Your task to perform on an android device: check google app version Image 0: 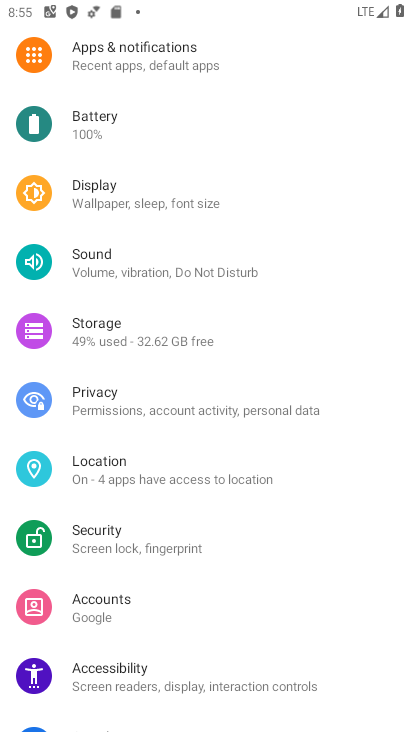
Step 0: press home button
Your task to perform on an android device: check google app version Image 1: 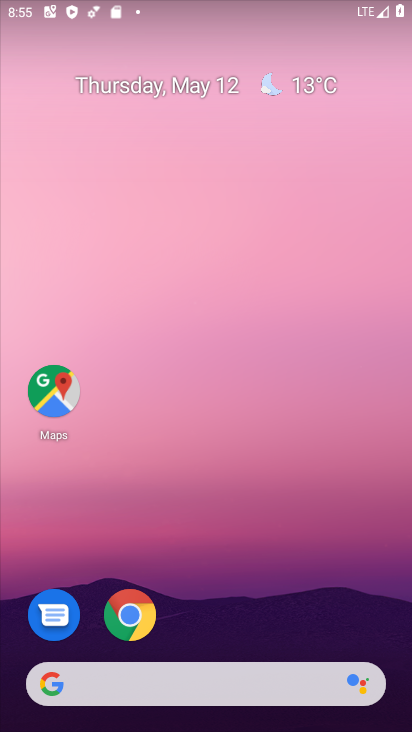
Step 1: drag from (212, 638) to (167, 95)
Your task to perform on an android device: check google app version Image 2: 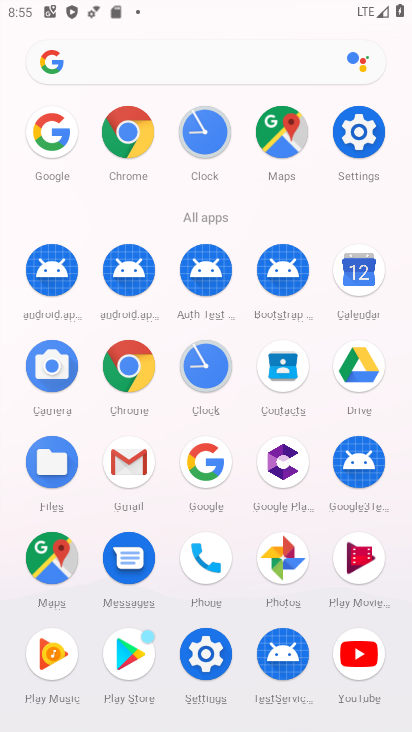
Step 2: click (203, 460)
Your task to perform on an android device: check google app version Image 3: 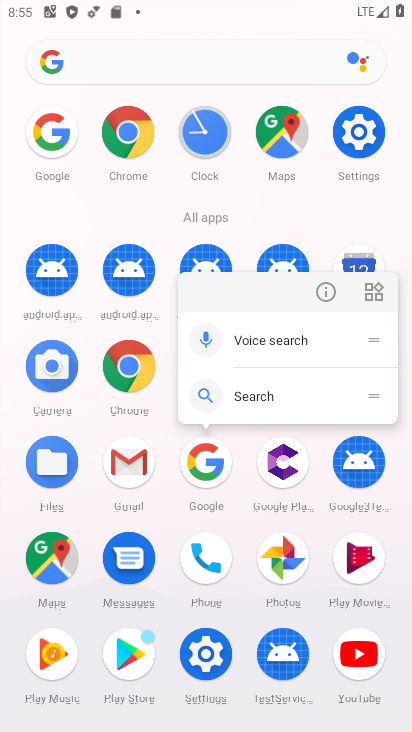
Step 3: click (308, 296)
Your task to perform on an android device: check google app version Image 4: 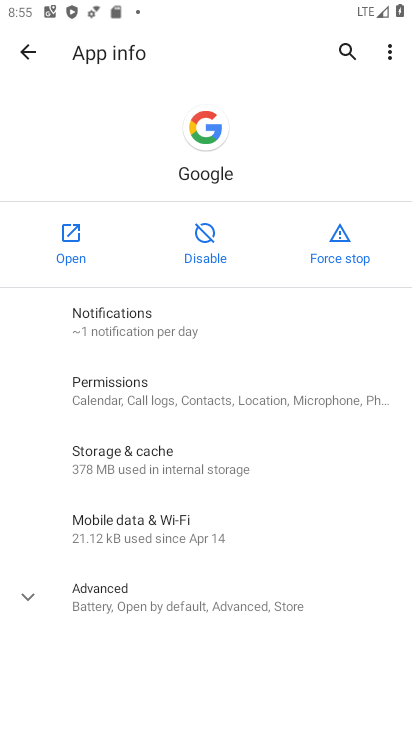
Step 4: click (119, 608)
Your task to perform on an android device: check google app version Image 5: 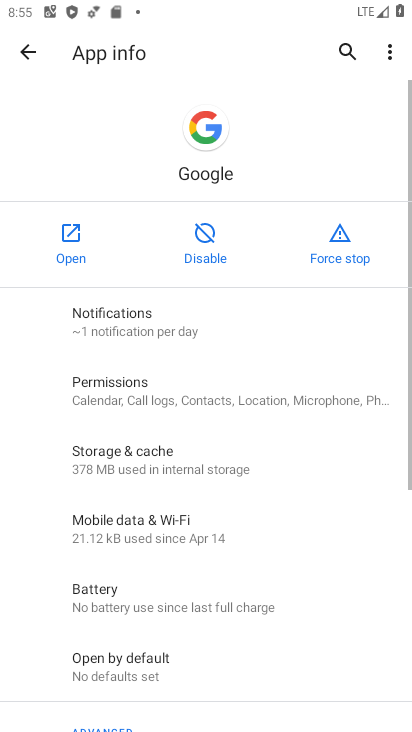
Step 5: task complete